Your task to perform on an android device: Open eBay Image 0: 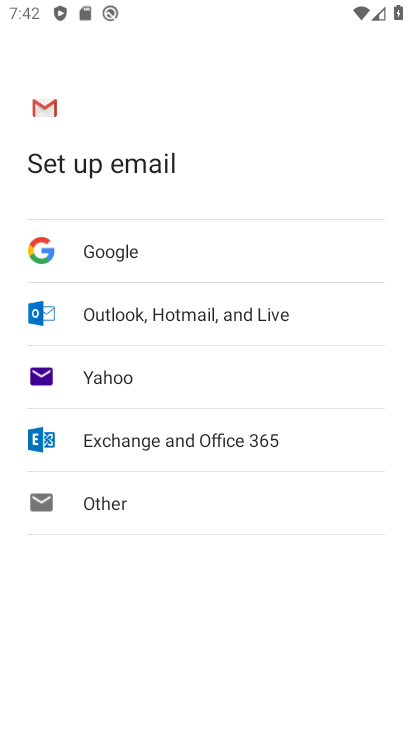
Step 0: press home button
Your task to perform on an android device: Open eBay Image 1: 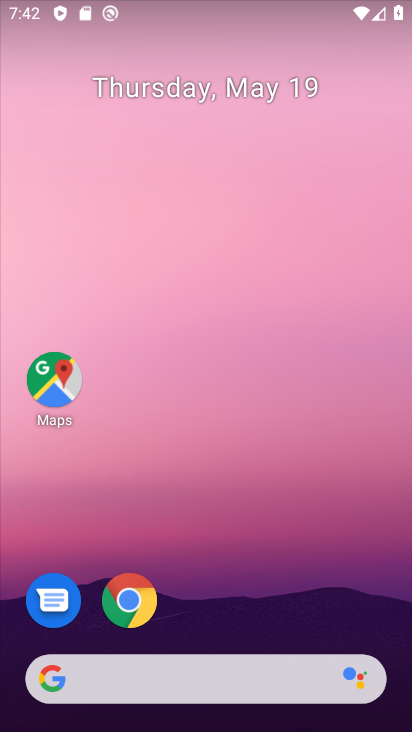
Step 1: click (241, 675)
Your task to perform on an android device: Open eBay Image 2: 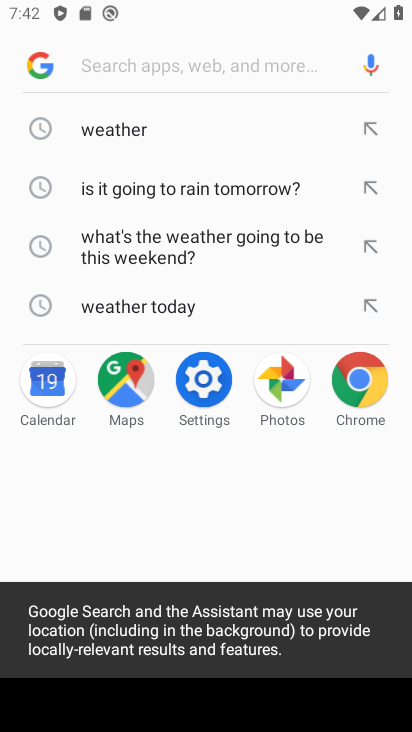
Step 2: click (241, 135)
Your task to perform on an android device: Open eBay Image 3: 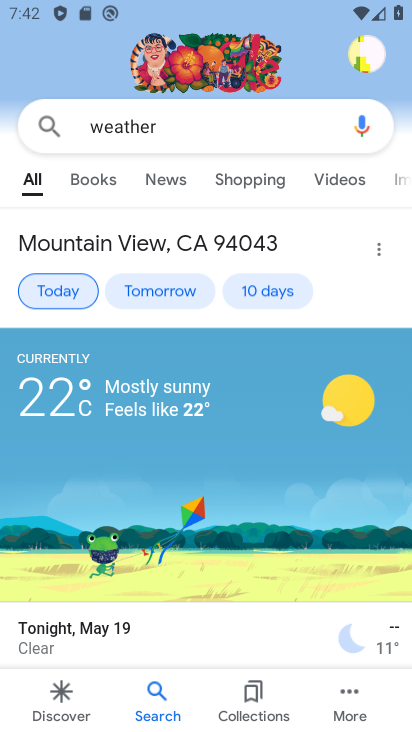
Step 3: press back button
Your task to perform on an android device: Open eBay Image 4: 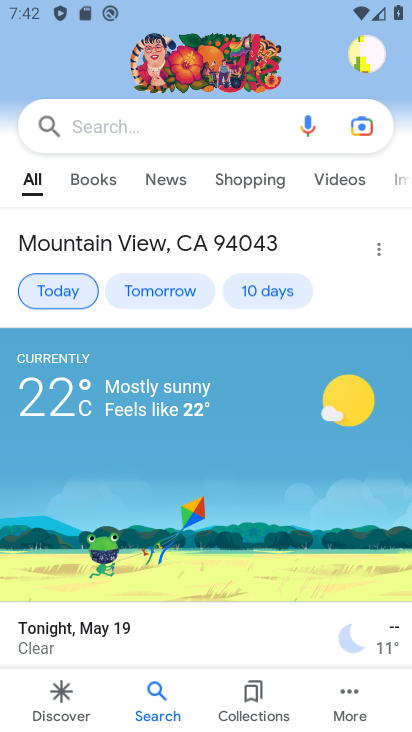
Step 4: press back button
Your task to perform on an android device: Open eBay Image 5: 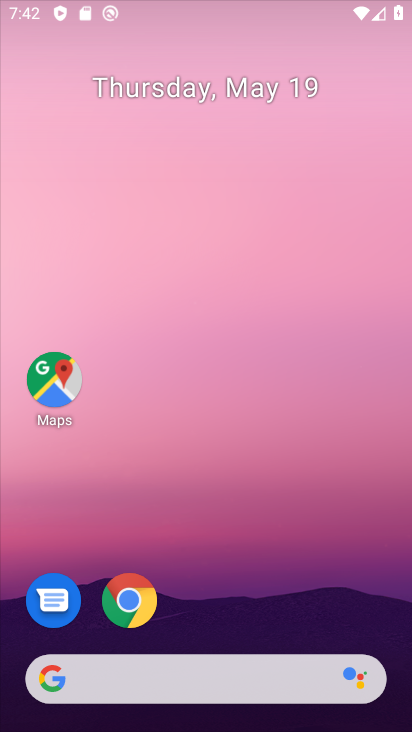
Step 5: press back button
Your task to perform on an android device: Open eBay Image 6: 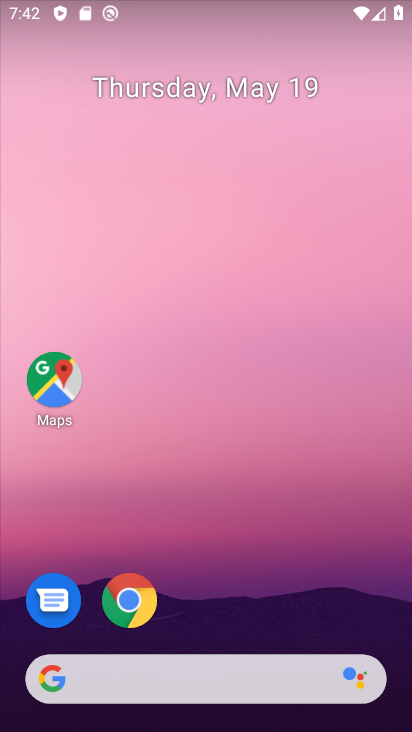
Step 6: click (184, 586)
Your task to perform on an android device: Open eBay Image 7: 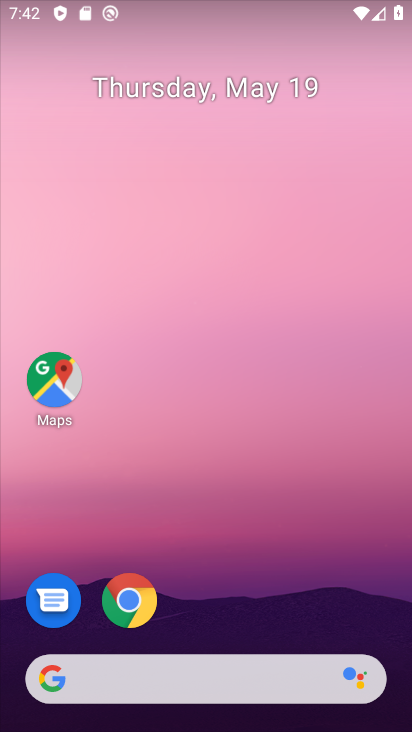
Step 7: click (150, 581)
Your task to perform on an android device: Open eBay Image 8: 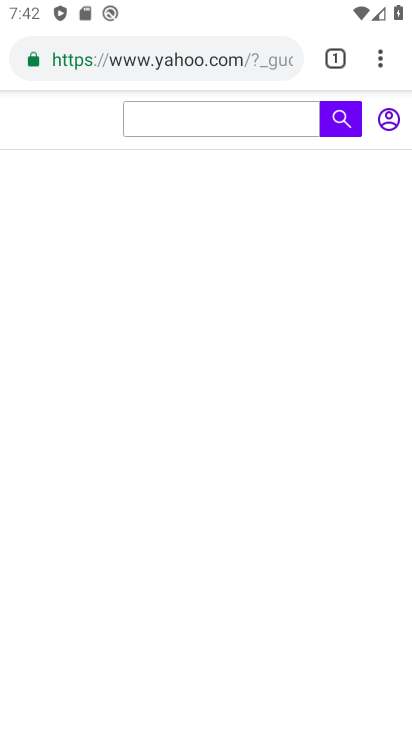
Step 8: click (258, 58)
Your task to perform on an android device: Open eBay Image 9: 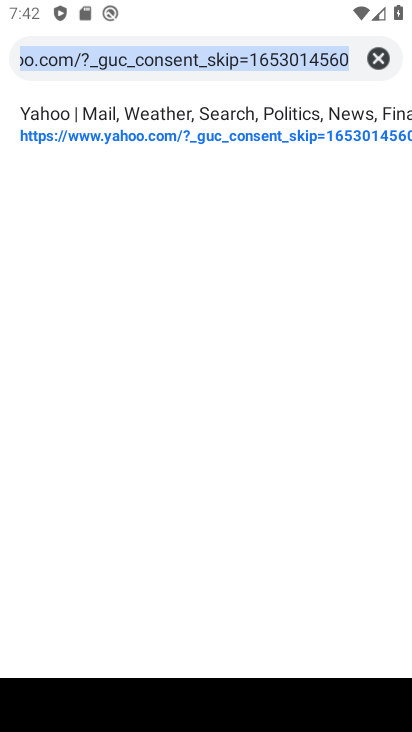
Step 9: type "ebay.com"
Your task to perform on an android device: Open eBay Image 10: 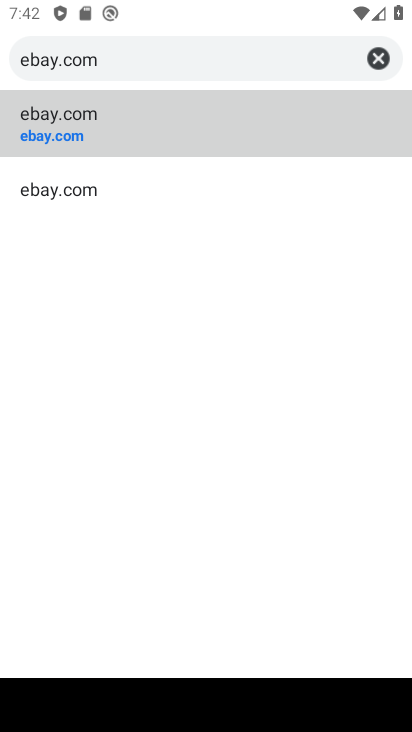
Step 10: click (26, 111)
Your task to perform on an android device: Open eBay Image 11: 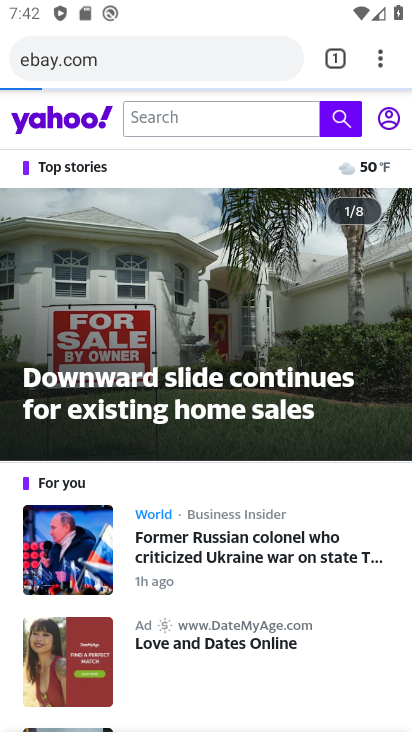
Step 11: task complete